Your task to perform on an android device: Go to accessibility settings Image 0: 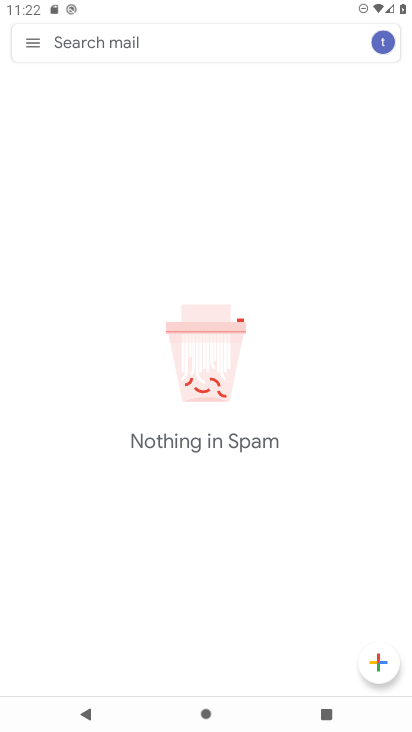
Step 0: press home button
Your task to perform on an android device: Go to accessibility settings Image 1: 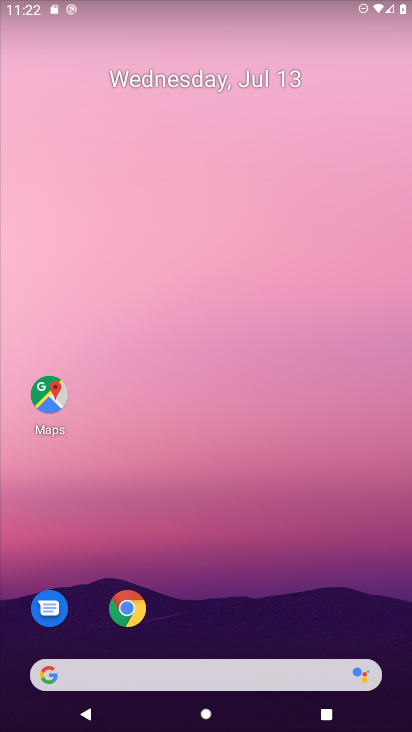
Step 1: drag from (231, 472) to (186, 74)
Your task to perform on an android device: Go to accessibility settings Image 2: 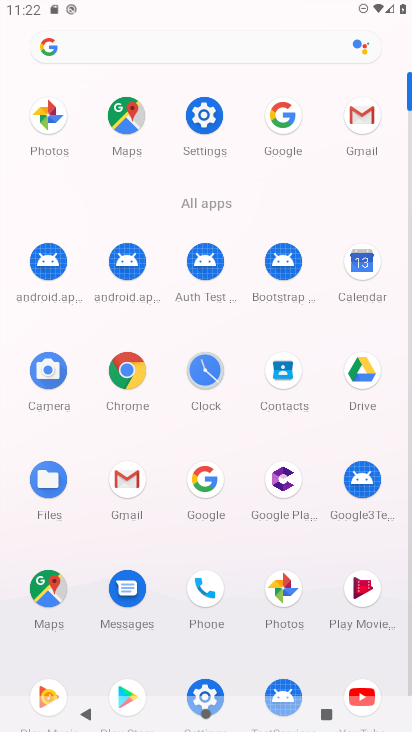
Step 2: click (206, 111)
Your task to perform on an android device: Go to accessibility settings Image 3: 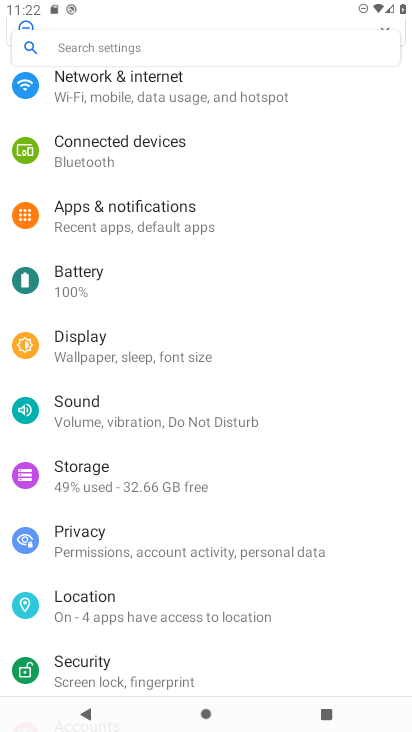
Step 3: drag from (115, 343) to (125, 86)
Your task to perform on an android device: Go to accessibility settings Image 4: 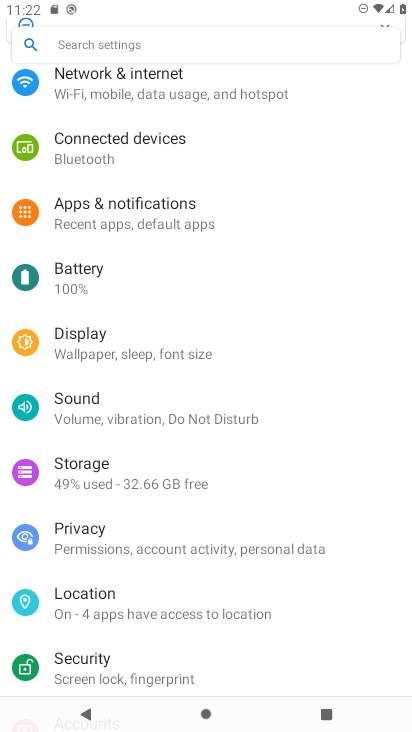
Step 4: drag from (156, 605) to (204, 183)
Your task to perform on an android device: Go to accessibility settings Image 5: 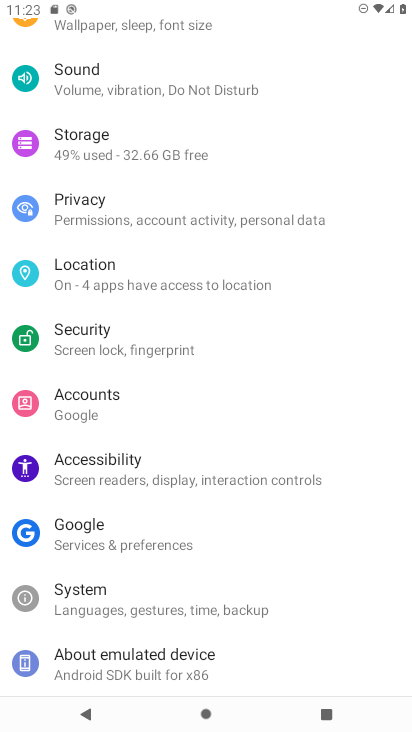
Step 5: click (135, 477)
Your task to perform on an android device: Go to accessibility settings Image 6: 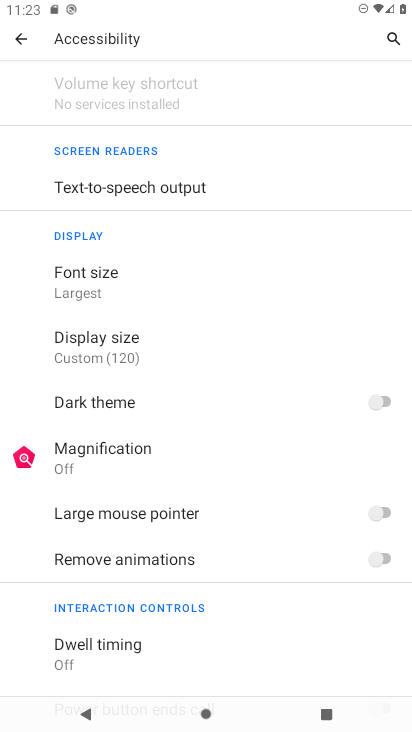
Step 6: task complete